Your task to perform on an android device: change your default location settings in chrome Image 0: 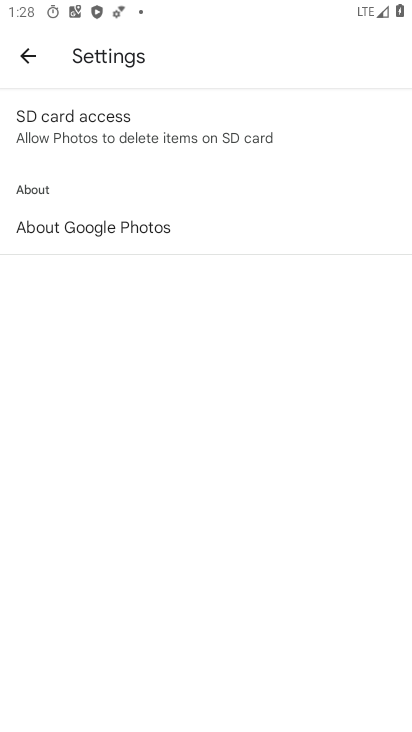
Step 0: press home button
Your task to perform on an android device: change your default location settings in chrome Image 1: 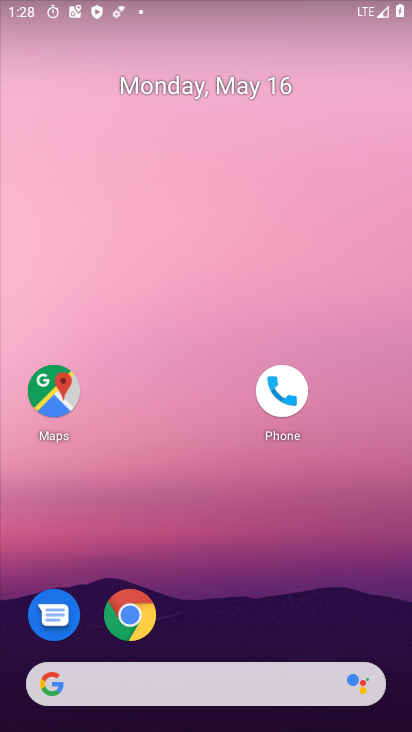
Step 1: drag from (354, 710) to (396, 164)
Your task to perform on an android device: change your default location settings in chrome Image 2: 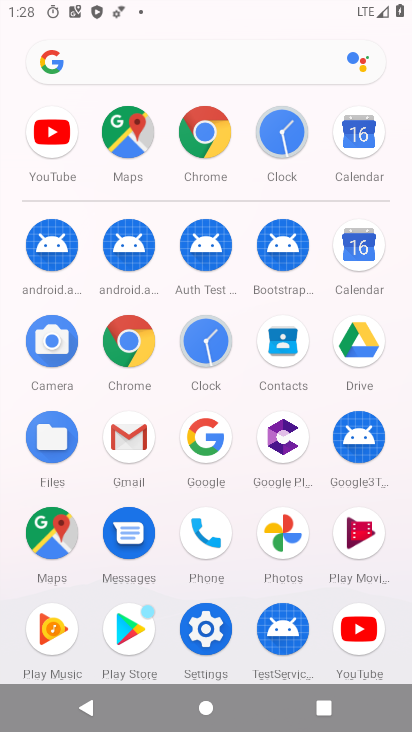
Step 2: click (143, 347)
Your task to perform on an android device: change your default location settings in chrome Image 3: 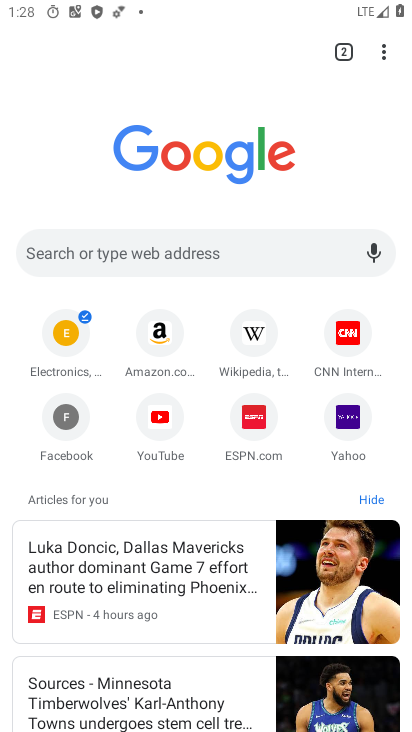
Step 3: drag from (380, 47) to (177, 445)
Your task to perform on an android device: change your default location settings in chrome Image 4: 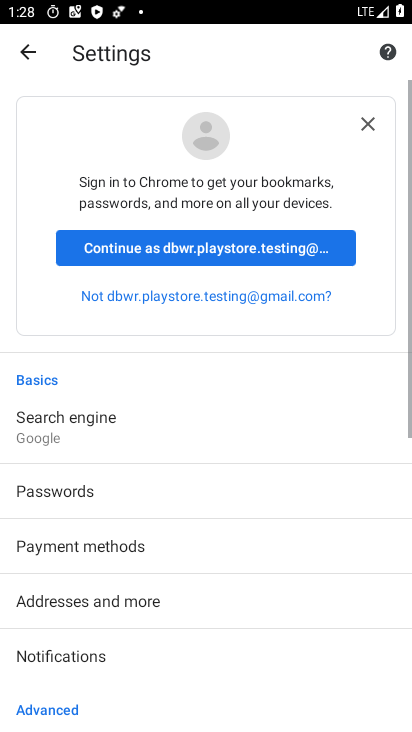
Step 4: drag from (303, 657) to (346, 133)
Your task to perform on an android device: change your default location settings in chrome Image 5: 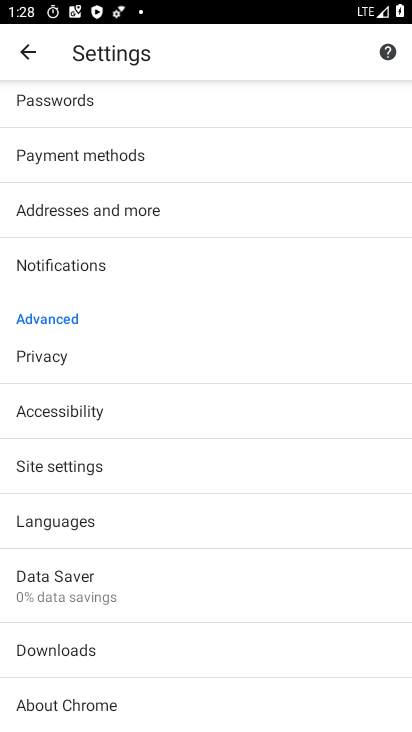
Step 5: click (118, 449)
Your task to perform on an android device: change your default location settings in chrome Image 6: 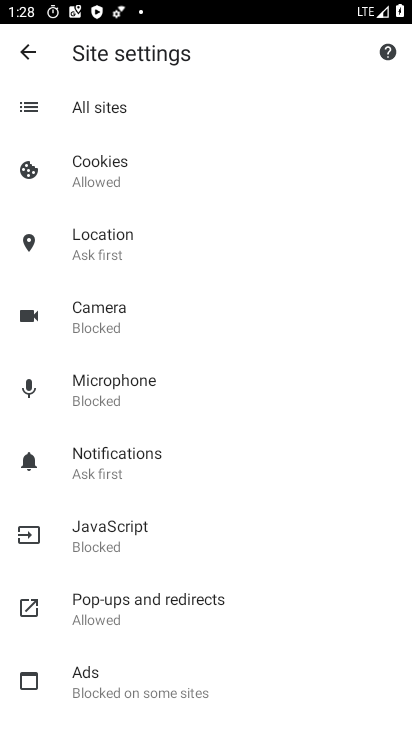
Step 6: click (161, 225)
Your task to perform on an android device: change your default location settings in chrome Image 7: 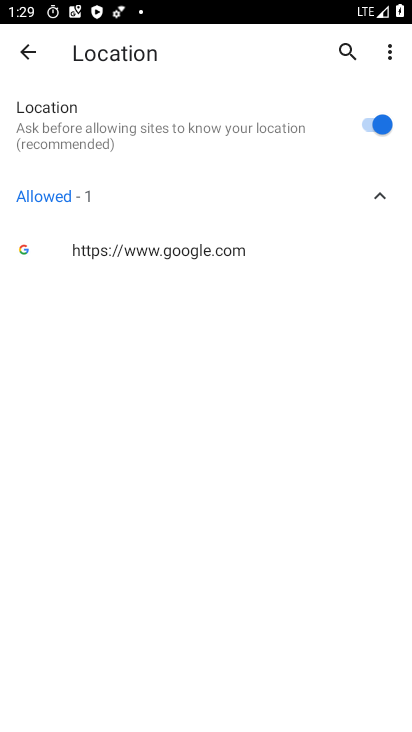
Step 7: task complete